Your task to perform on an android device: turn on location history Image 0: 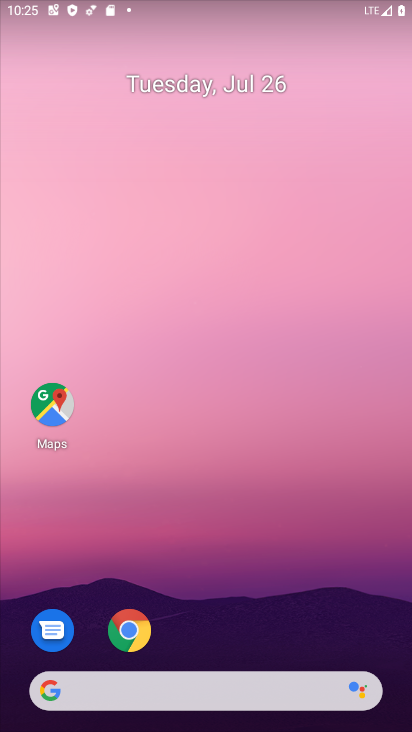
Step 0: drag from (183, 520) to (194, 107)
Your task to perform on an android device: turn on location history Image 1: 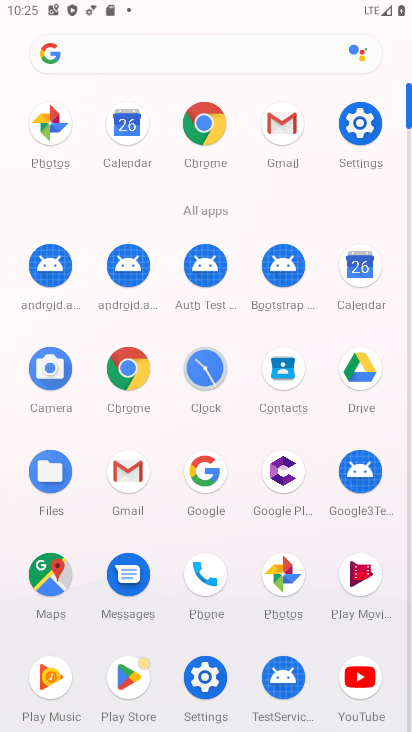
Step 1: click (364, 129)
Your task to perform on an android device: turn on location history Image 2: 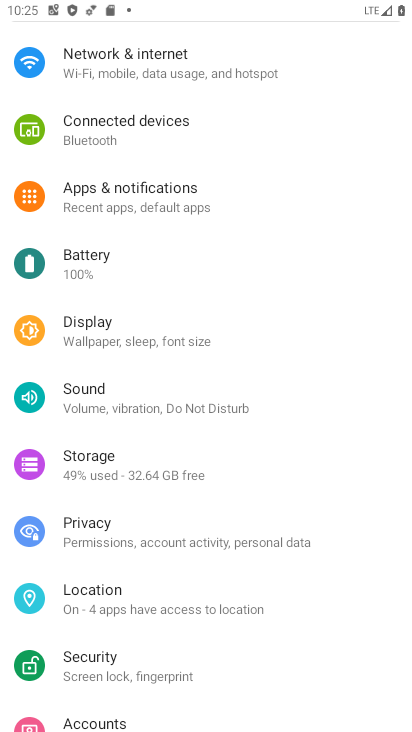
Step 2: click (80, 623)
Your task to perform on an android device: turn on location history Image 3: 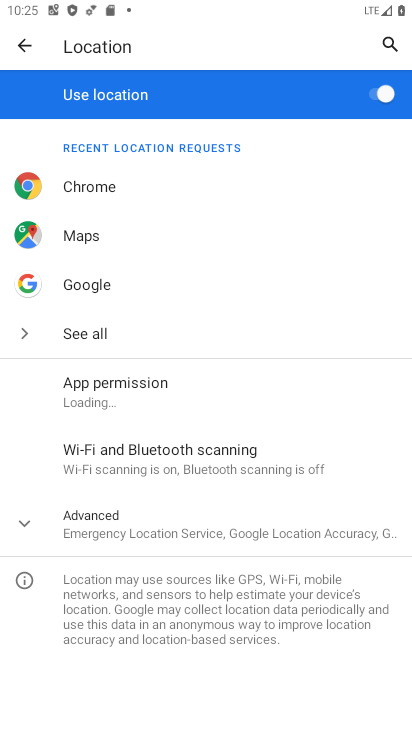
Step 3: click (153, 529)
Your task to perform on an android device: turn on location history Image 4: 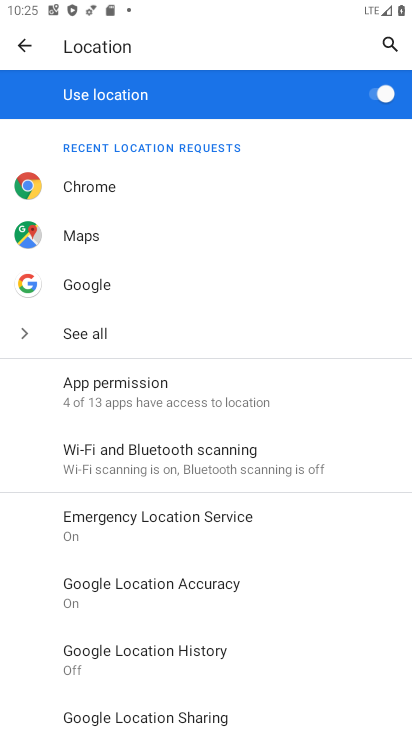
Step 4: click (120, 675)
Your task to perform on an android device: turn on location history Image 5: 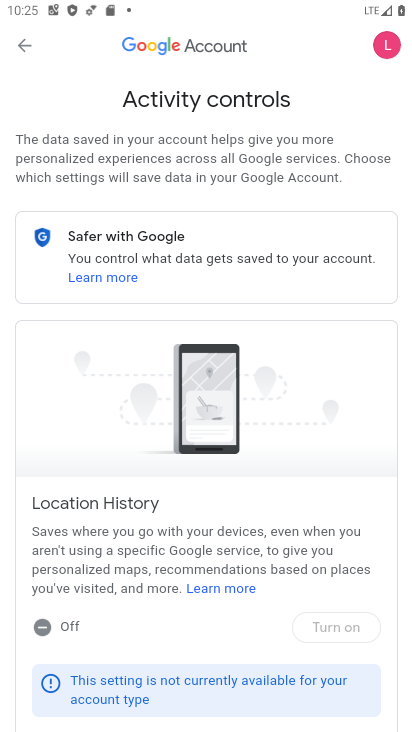
Step 5: click (214, 588)
Your task to perform on an android device: turn on location history Image 6: 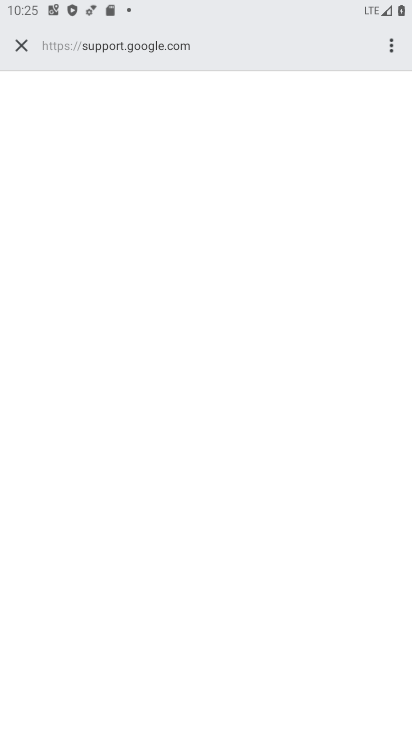
Step 6: drag from (225, 515) to (236, 383)
Your task to perform on an android device: turn on location history Image 7: 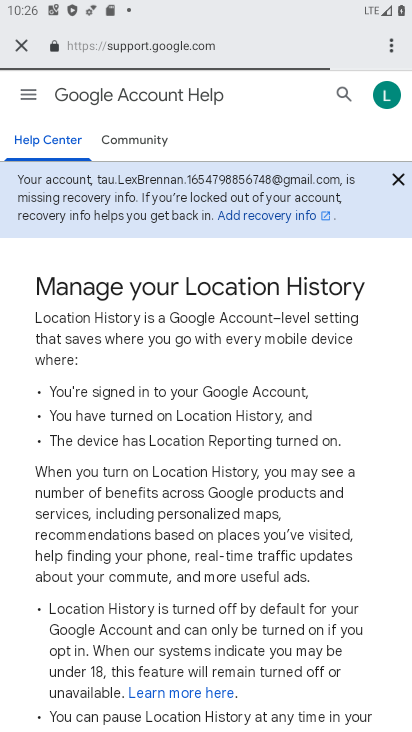
Step 7: click (19, 47)
Your task to perform on an android device: turn on location history Image 8: 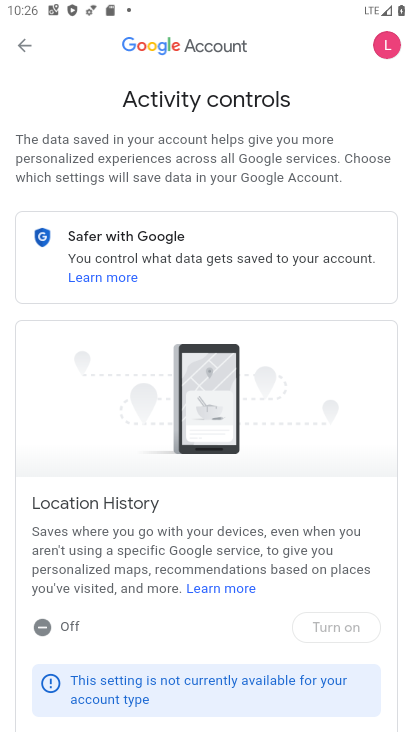
Step 8: task complete